Your task to perform on an android device: change the clock display to show seconds Image 0: 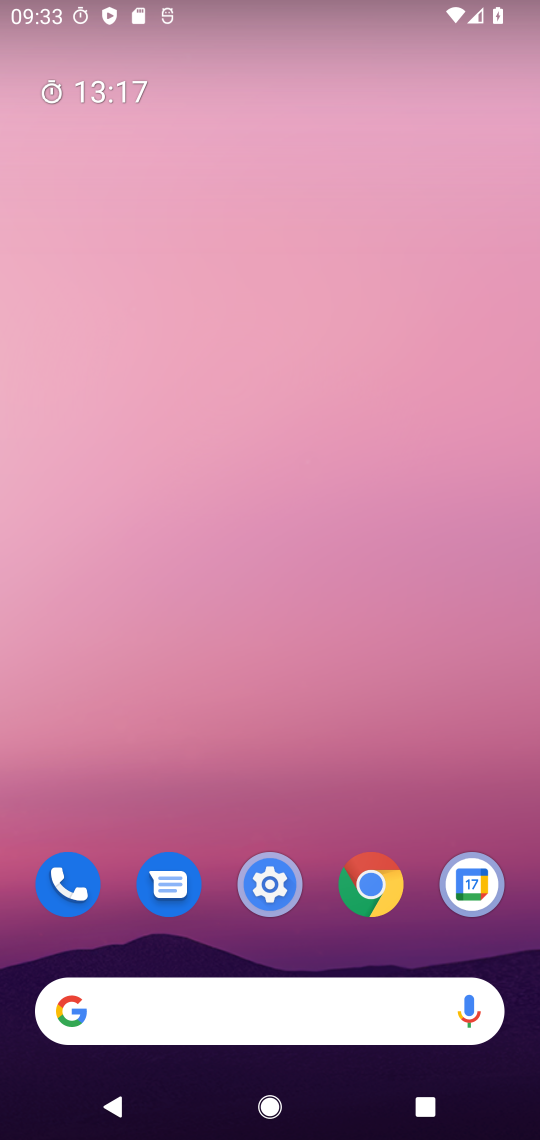
Step 0: drag from (326, 792) to (260, 111)
Your task to perform on an android device: change the clock display to show seconds Image 1: 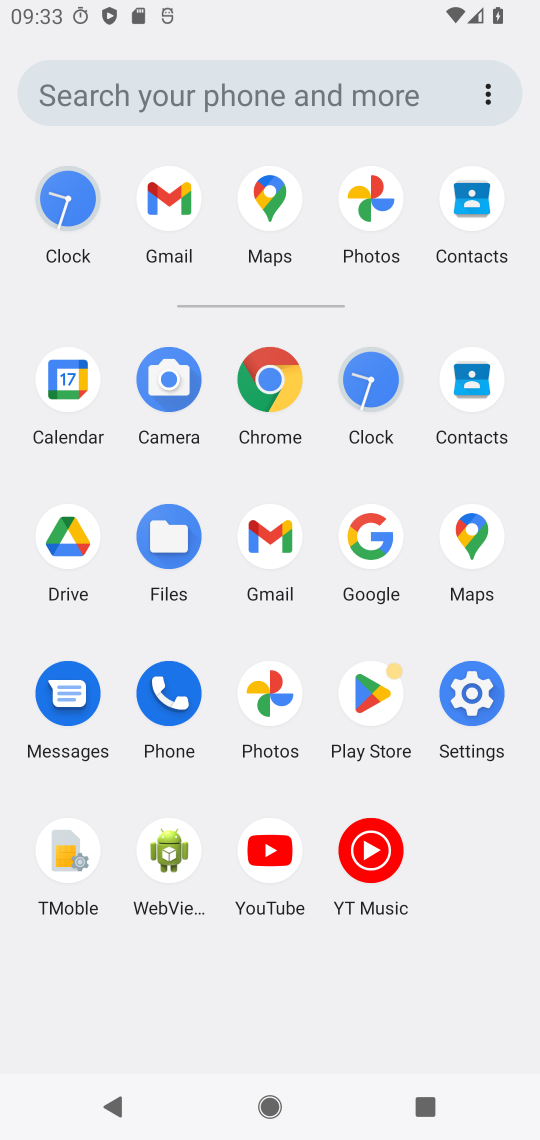
Step 1: click (69, 224)
Your task to perform on an android device: change the clock display to show seconds Image 2: 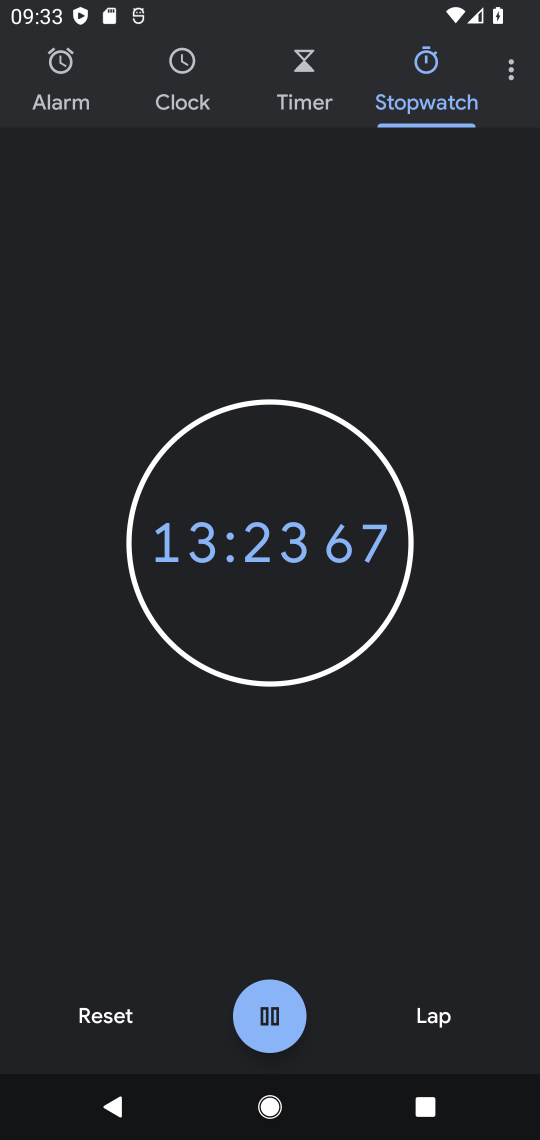
Step 2: click (507, 77)
Your task to perform on an android device: change the clock display to show seconds Image 3: 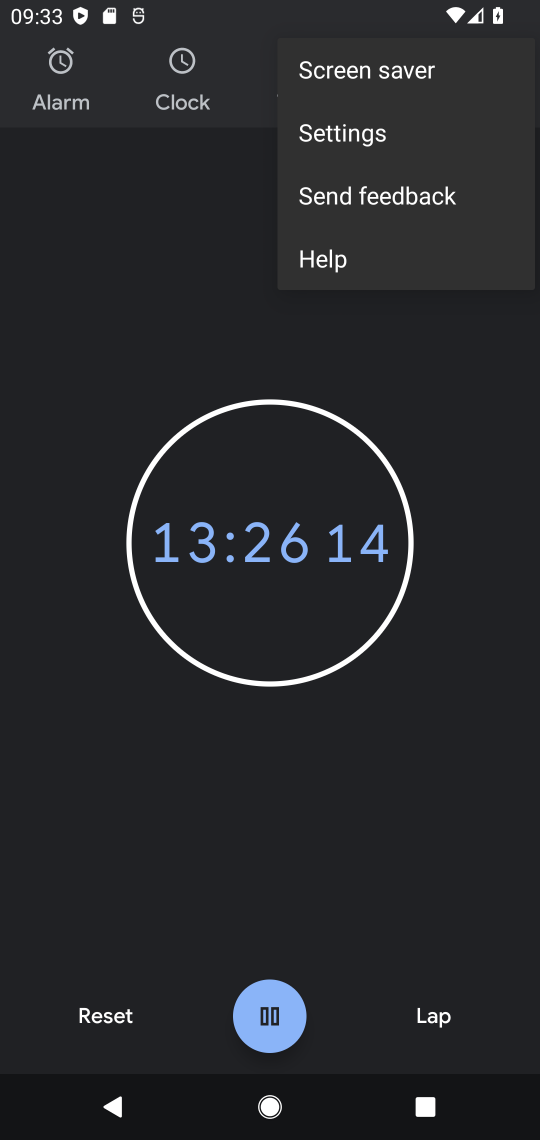
Step 3: click (318, 148)
Your task to perform on an android device: change the clock display to show seconds Image 4: 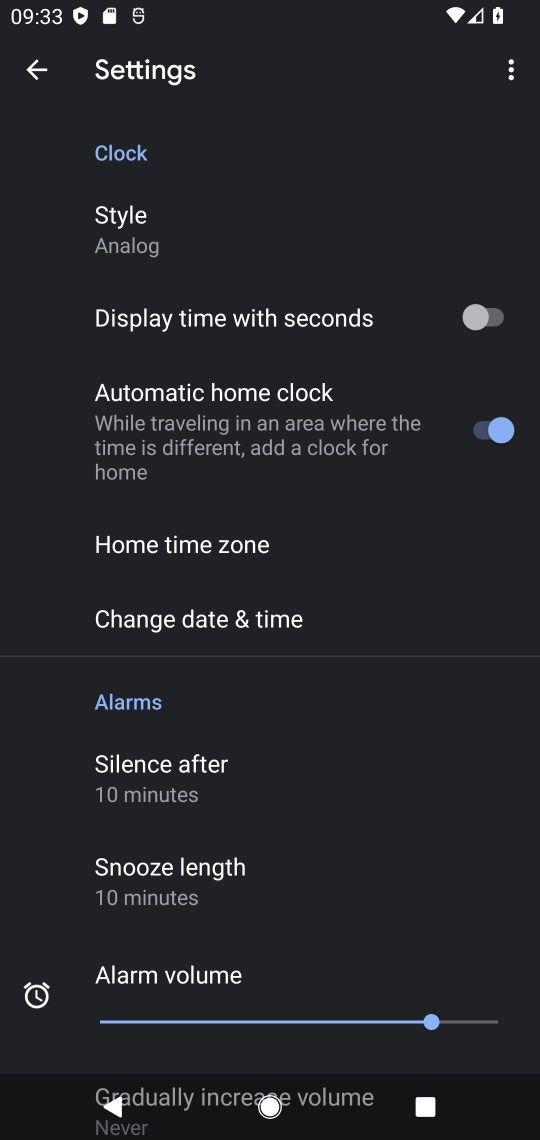
Step 4: click (509, 313)
Your task to perform on an android device: change the clock display to show seconds Image 5: 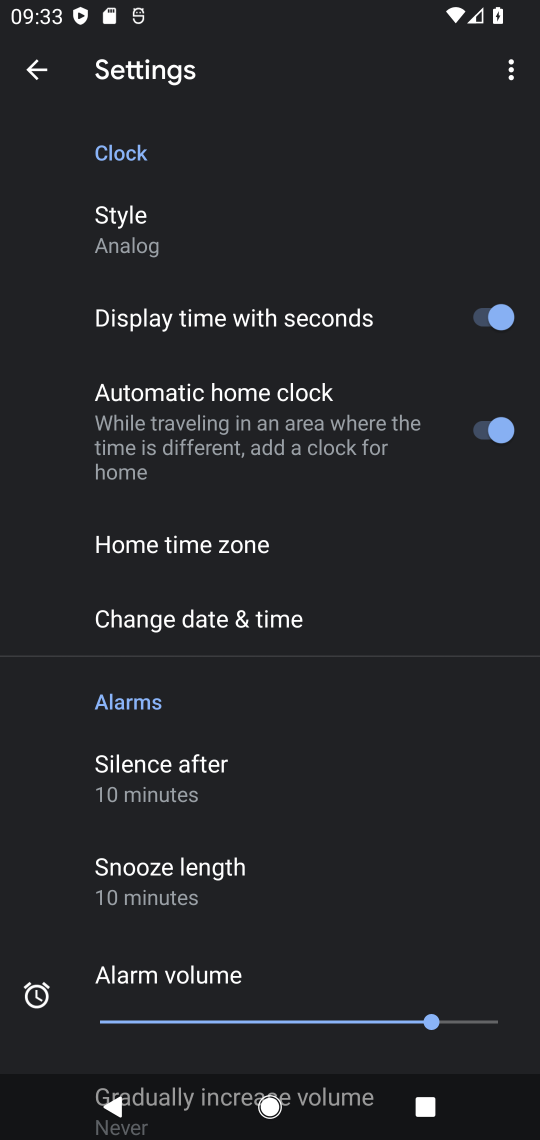
Step 5: task complete